Your task to perform on an android device: Clear the shopping cart on walmart. Search for razer naga on walmart, select the first entry, add it to the cart, then select checkout. Image 0: 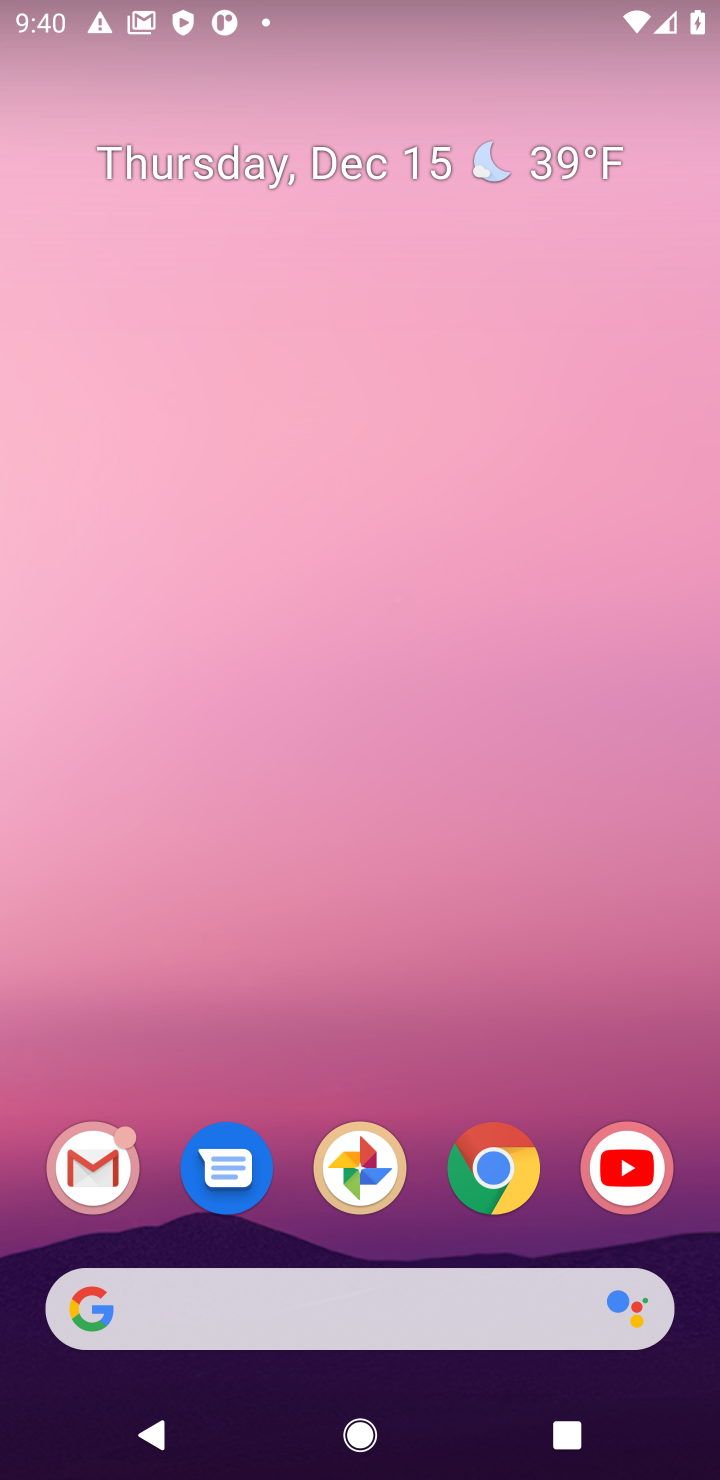
Step 0: click (481, 1165)
Your task to perform on an android device: Clear the shopping cart on walmart. Search for razer naga on walmart, select the first entry, add it to the cart, then select checkout. Image 1: 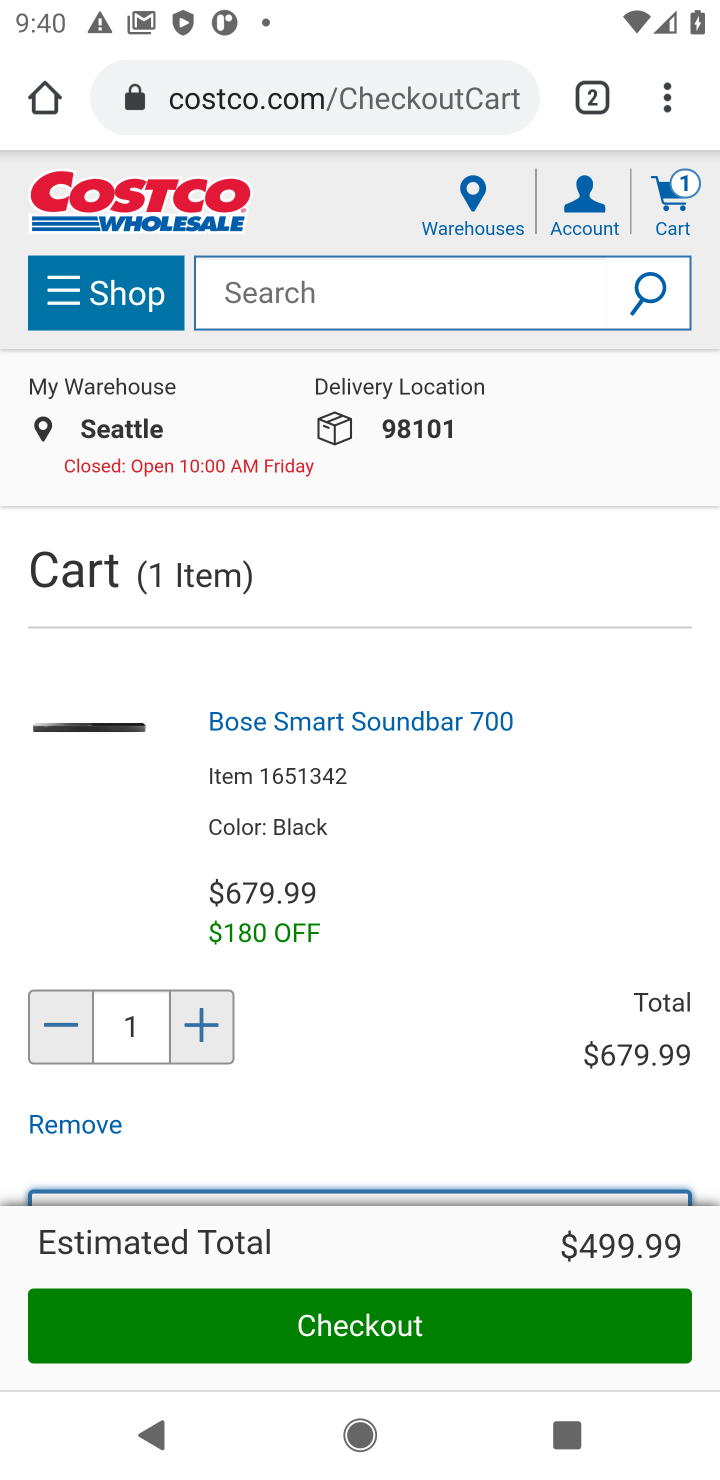
Step 1: click (320, 96)
Your task to perform on an android device: Clear the shopping cart on walmart. Search for razer naga on walmart, select the first entry, add it to the cart, then select checkout. Image 2: 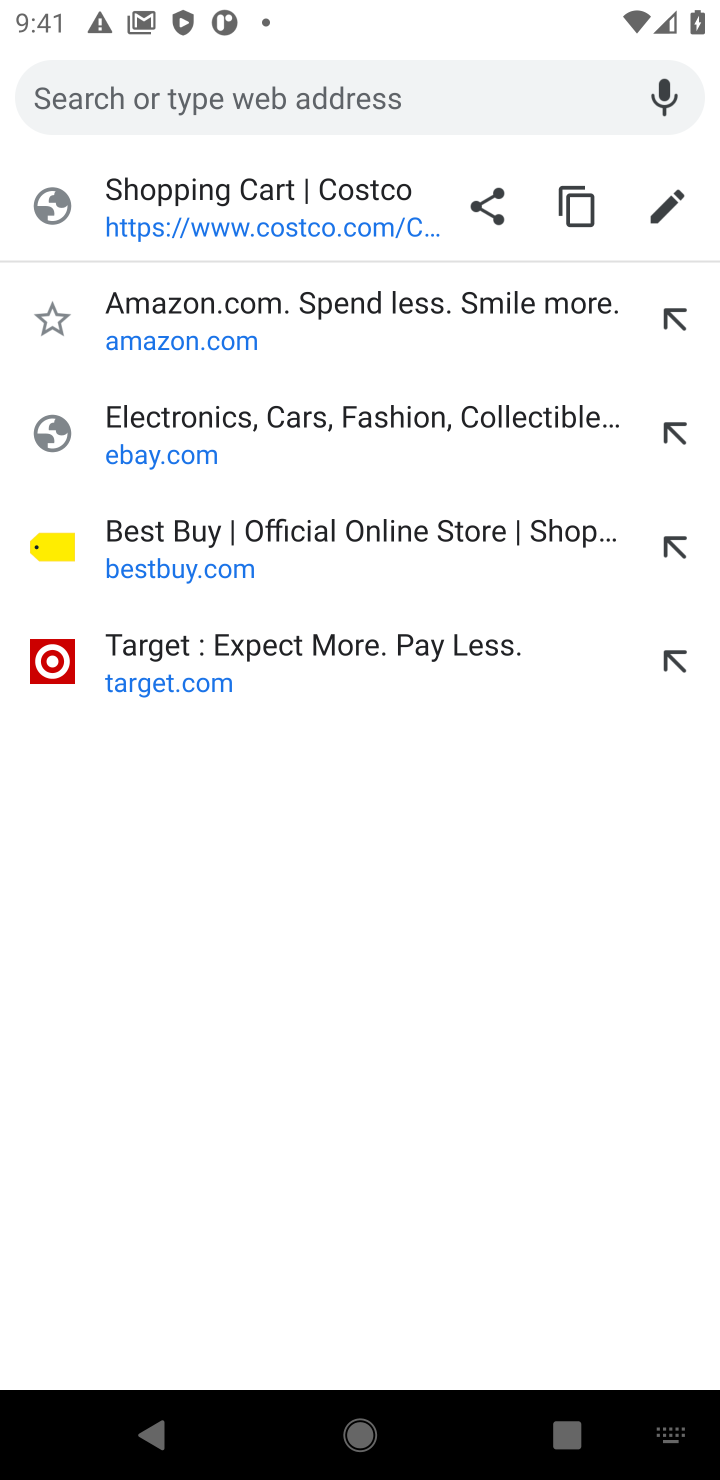
Step 2: type "WALMART"
Your task to perform on an android device: Clear the shopping cart on walmart. Search for razer naga on walmart, select the first entry, add it to the cart, then select checkout. Image 3: 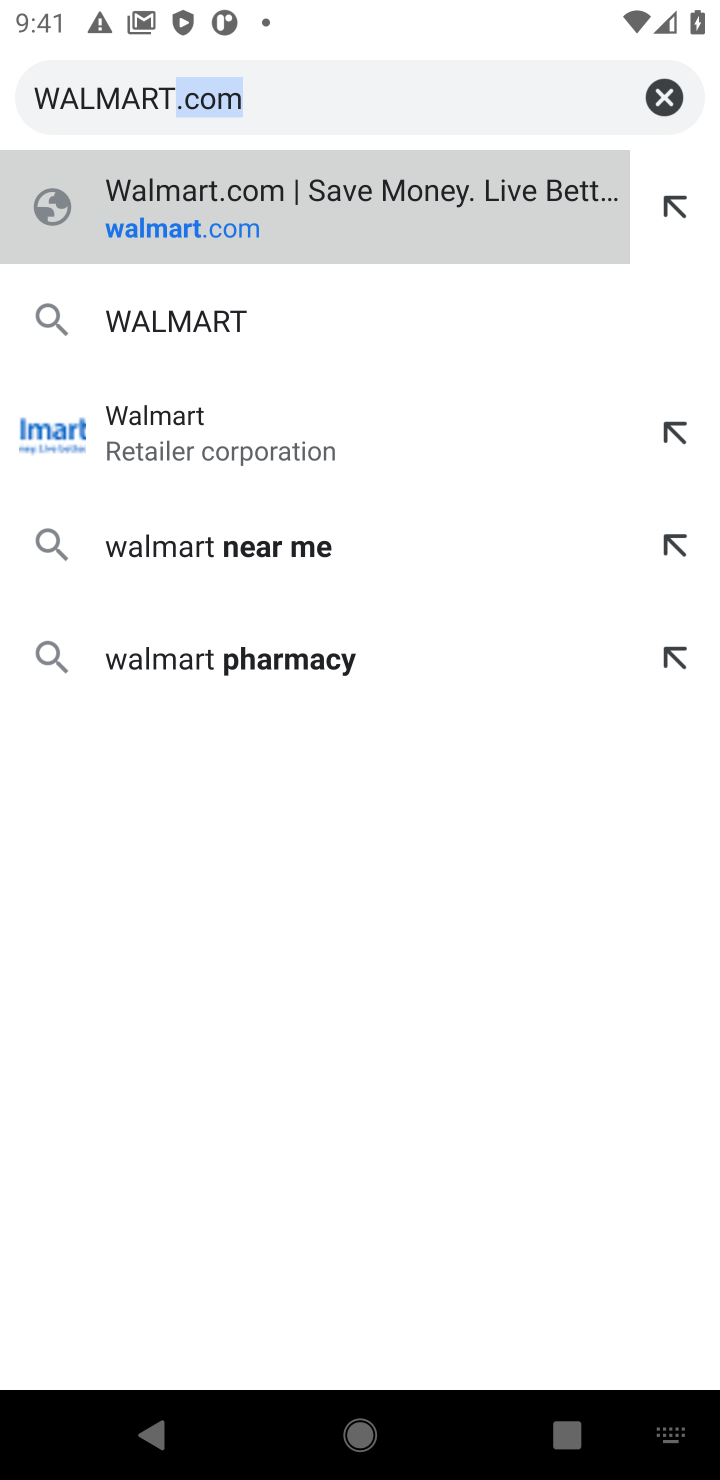
Step 3: click (321, 217)
Your task to perform on an android device: Clear the shopping cart on walmart. Search for razer naga on walmart, select the first entry, add it to the cart, then select checkout. Image 4: 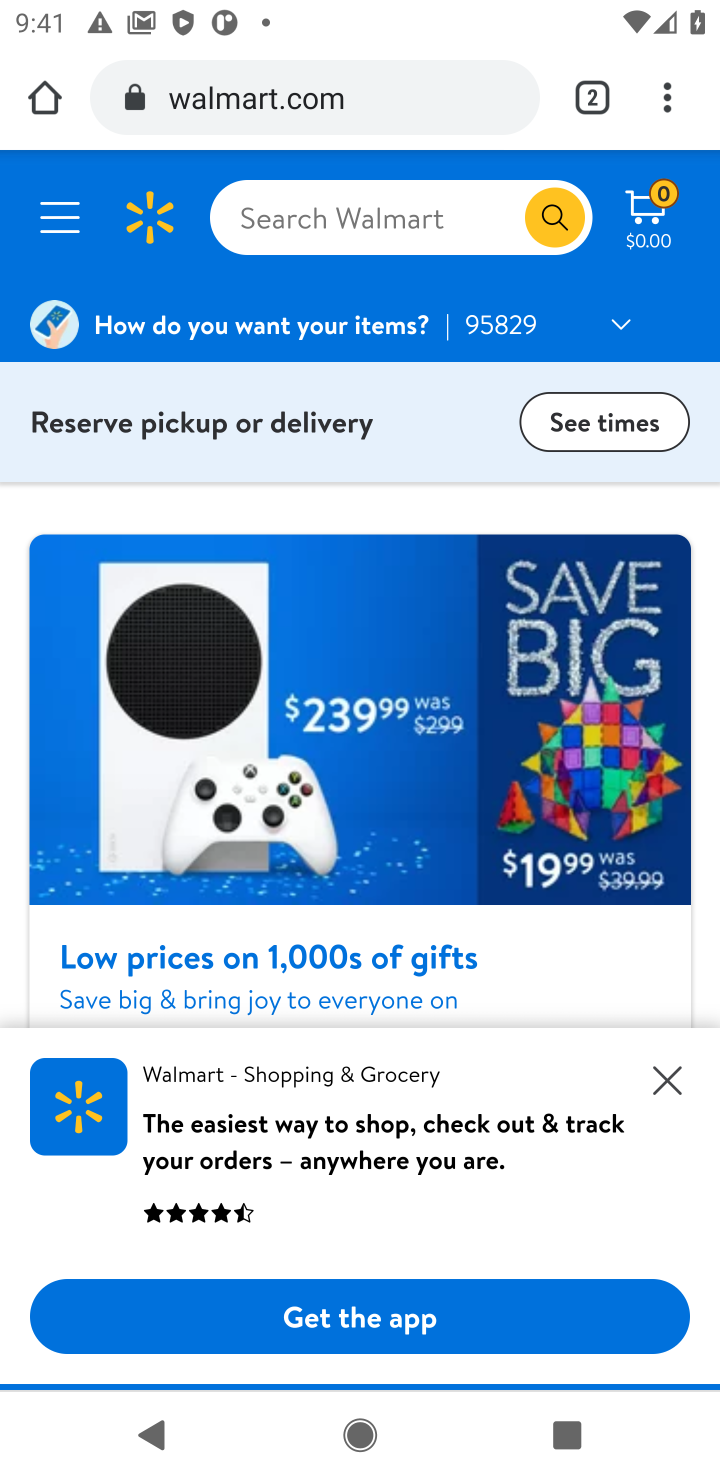
Step 4: click (393, 205)
Your task to perform on an android device: Clear the shopping cart on walmart. Search for razer naga on walmart, select the first entry, add it to the cart, then select checkout. Image 5: 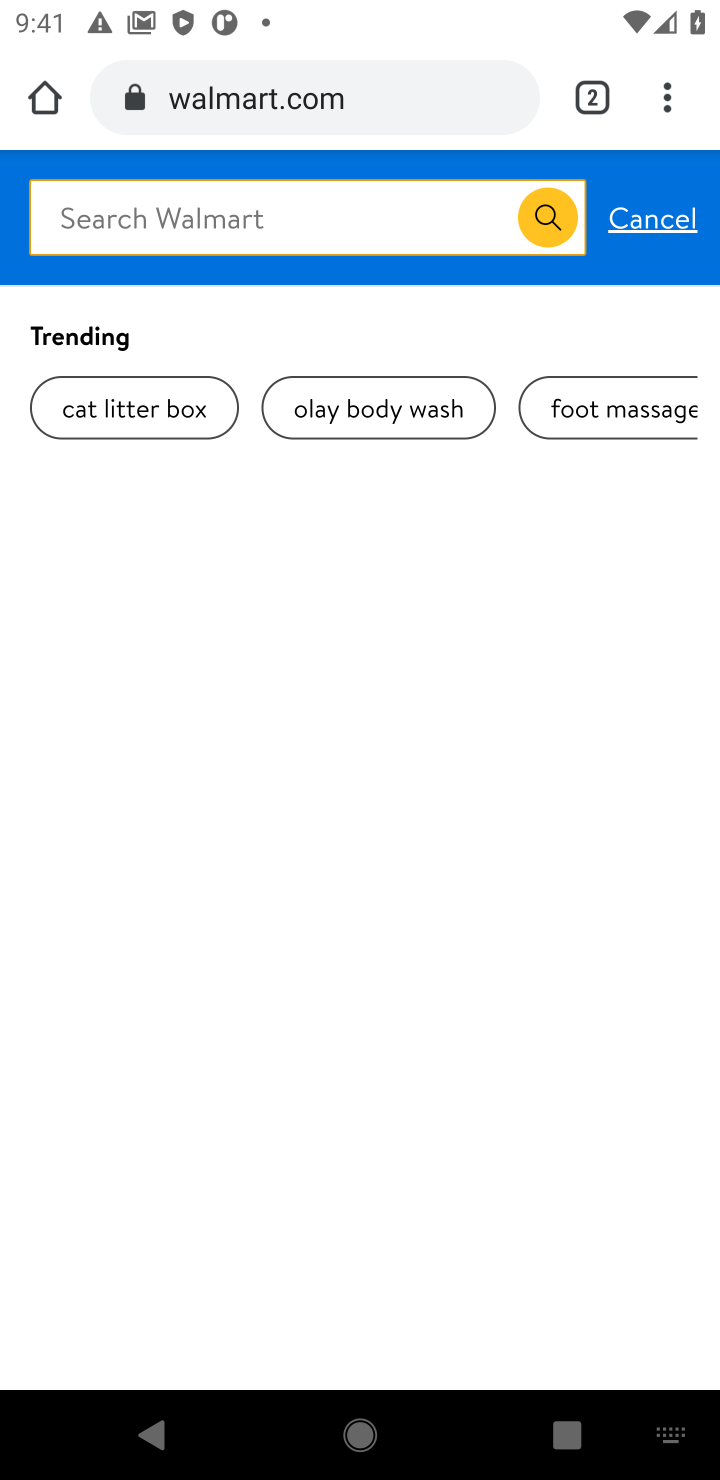
Step 5: type "razer naga"
Your task to perform on an android device: Clear the shopping cart on walmart. Search for razer naga on walmart, select the first entry, add it to the cart, then select checkout. Image 6: 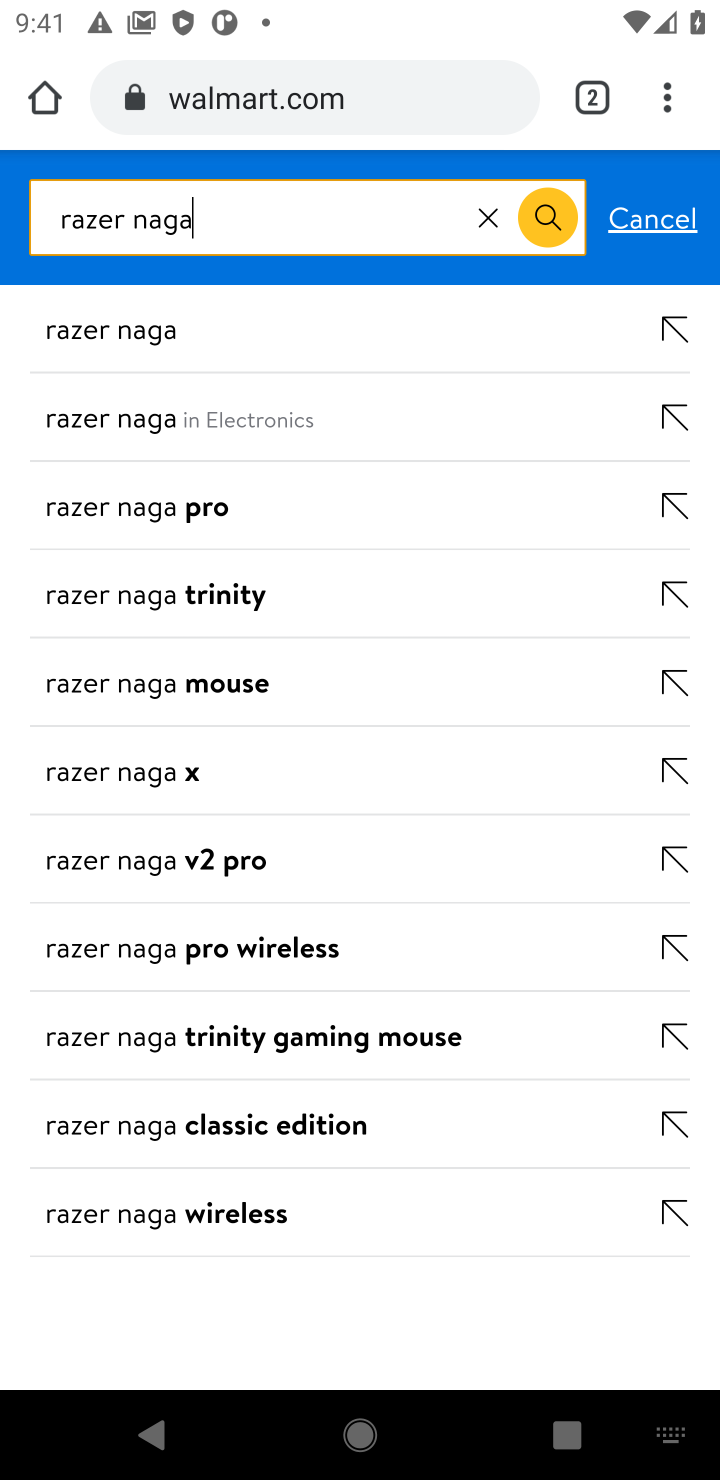
Step 6: click (109, 338)
Your task to perform on an android device: Clear the shopping cart on walmart. Search for razer naga on walmart, select the first entry, add it to the cart, then select checkout. Image 7: 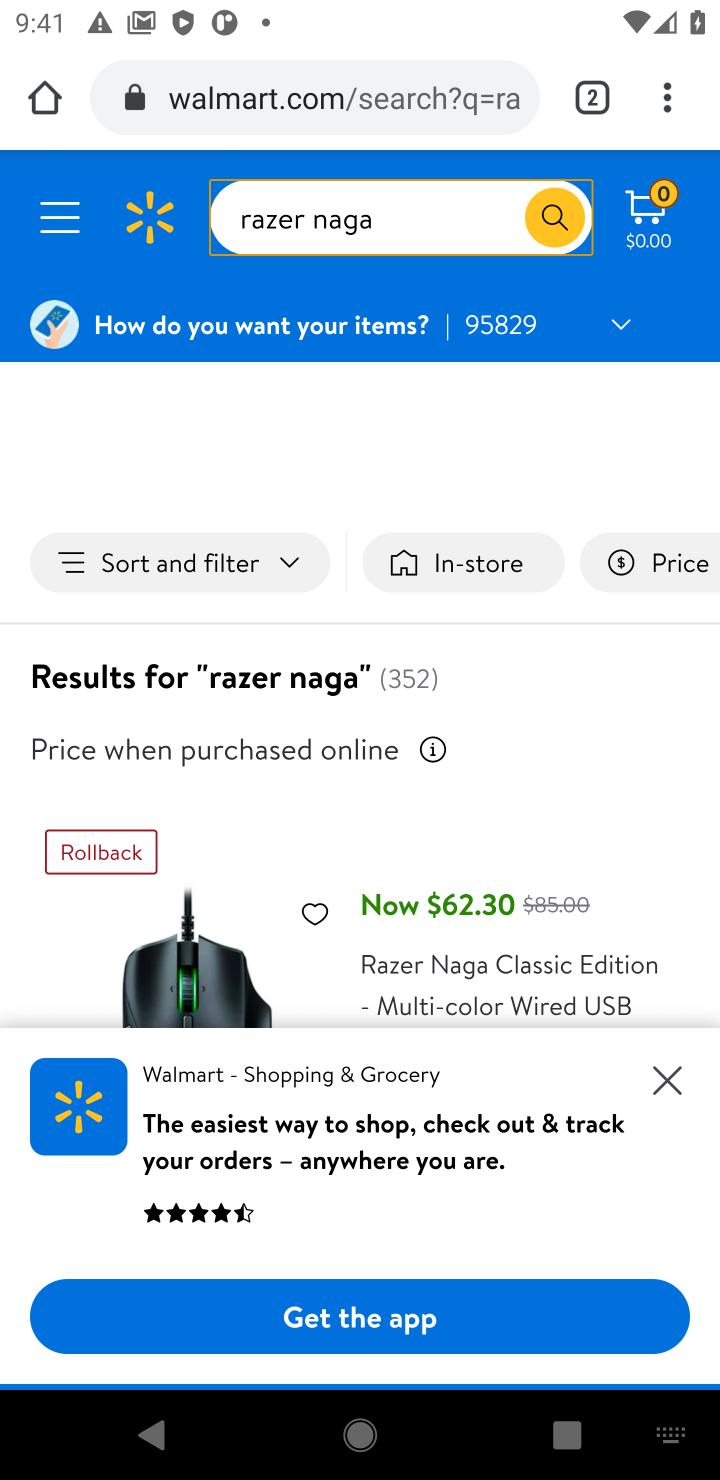
Step 7: click (661, 1081)
Your task to perform on an android device: Clear the shopping cart on walmart. Search for razer naga on walmart, select the first entry, add it to the cart, then select checkout. Image 8: 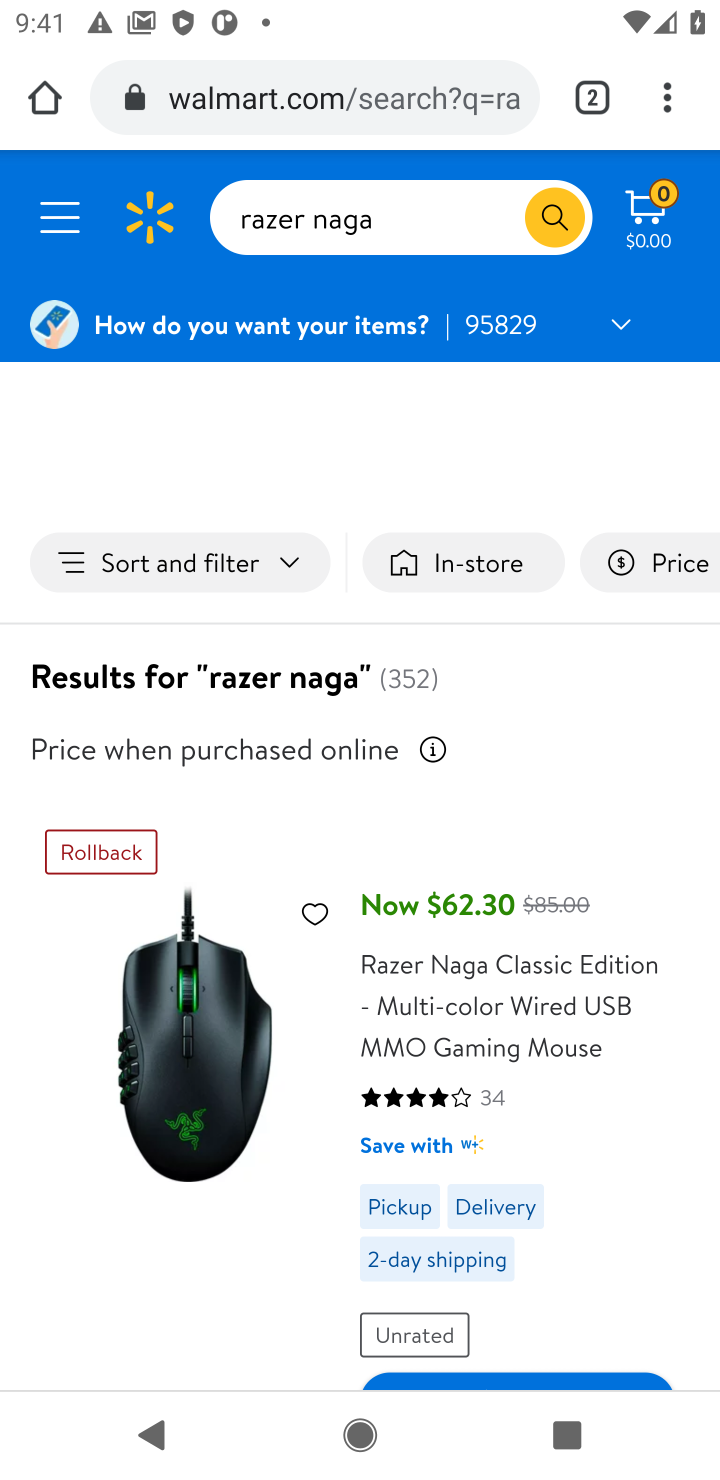
Step 8: click (666, 1014)
Your task to perform on an android device: Clear the shopping cart on walmart. Search for razer naga on walmart, select the first entry, add it to the cart, then select checkout. Image 9: 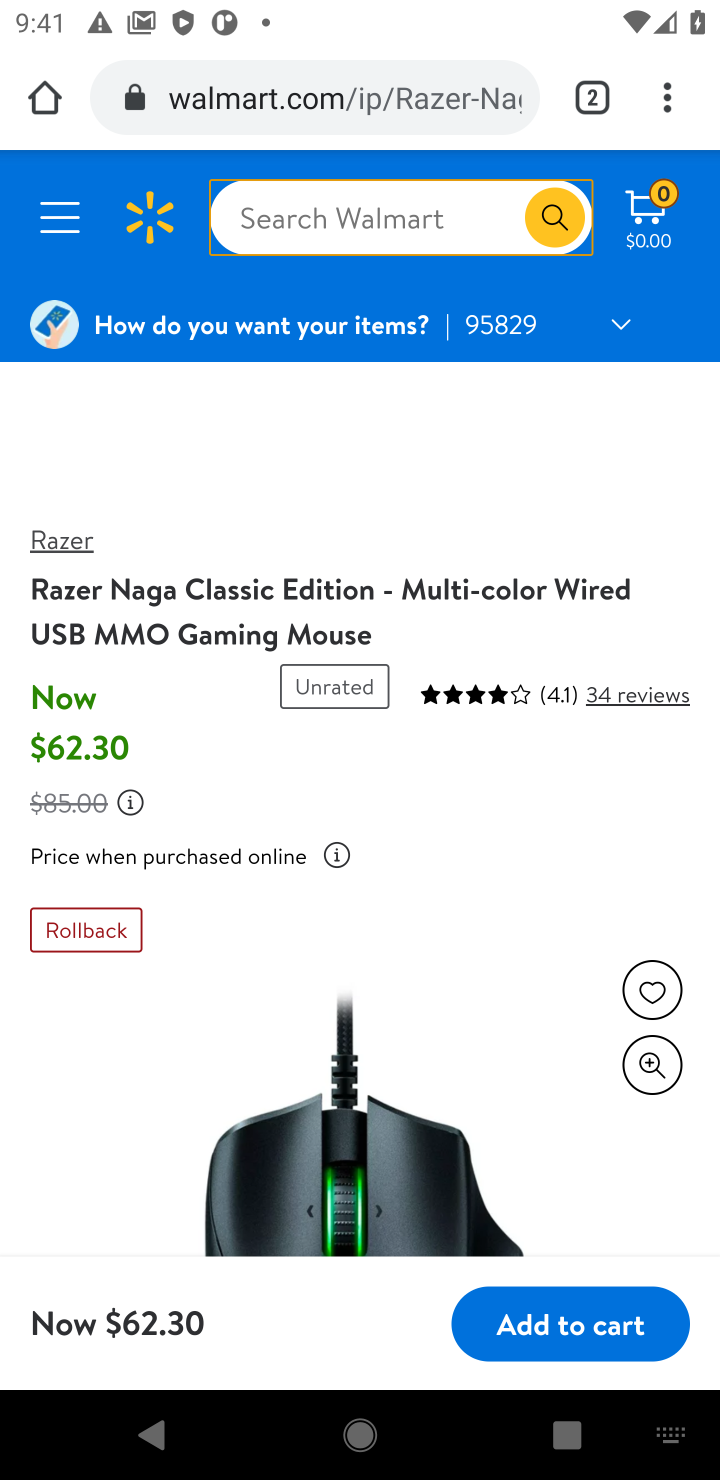
Step 9: click (554, 1304)
Your task to perform on an android device: Clear the shopping cart on walmart. Search for razer naga on walmart, select the first entry, add it to the cart, then select checkout. Image 10: 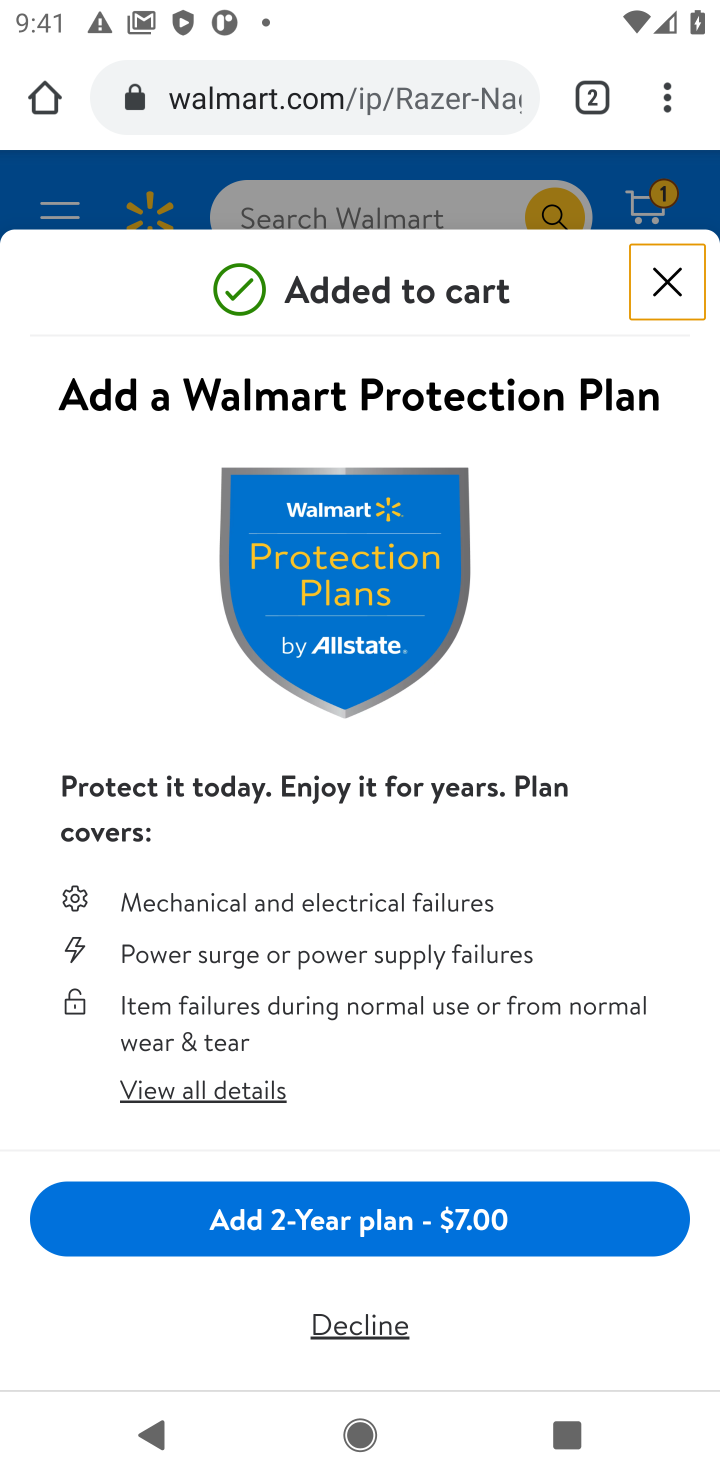
Step 10: click (670, 273)
Your task to perform on an android device: Clear the shopping cart on walmart. Search for razer naga on walmart, select the first entry, add it to the cart, then select checkout. Image 11: 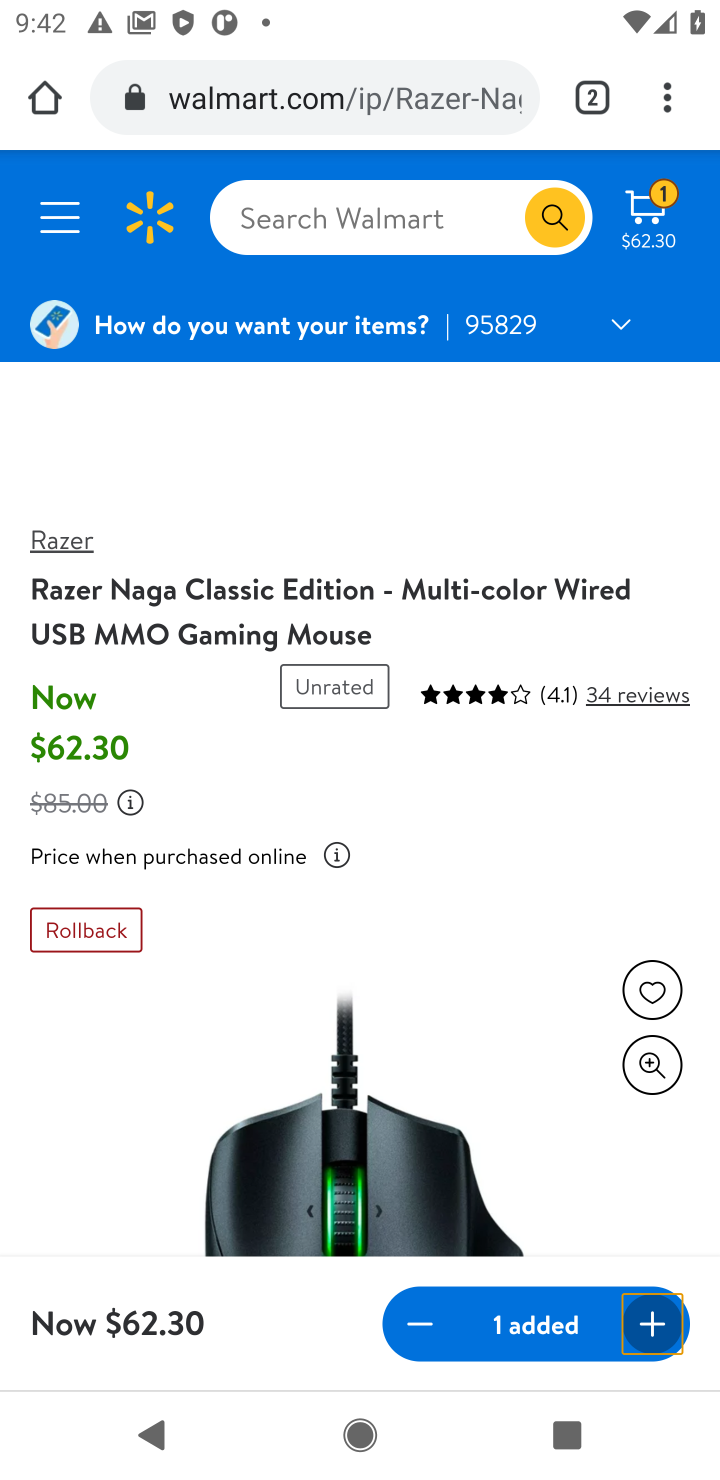
Step 11: click (654, 219)
Your task to perform on an android device: Clear the shopping cart on walmart. Search for razer naga on walmart, select the first entry, add it to the cart, then select checkout. Image 12: 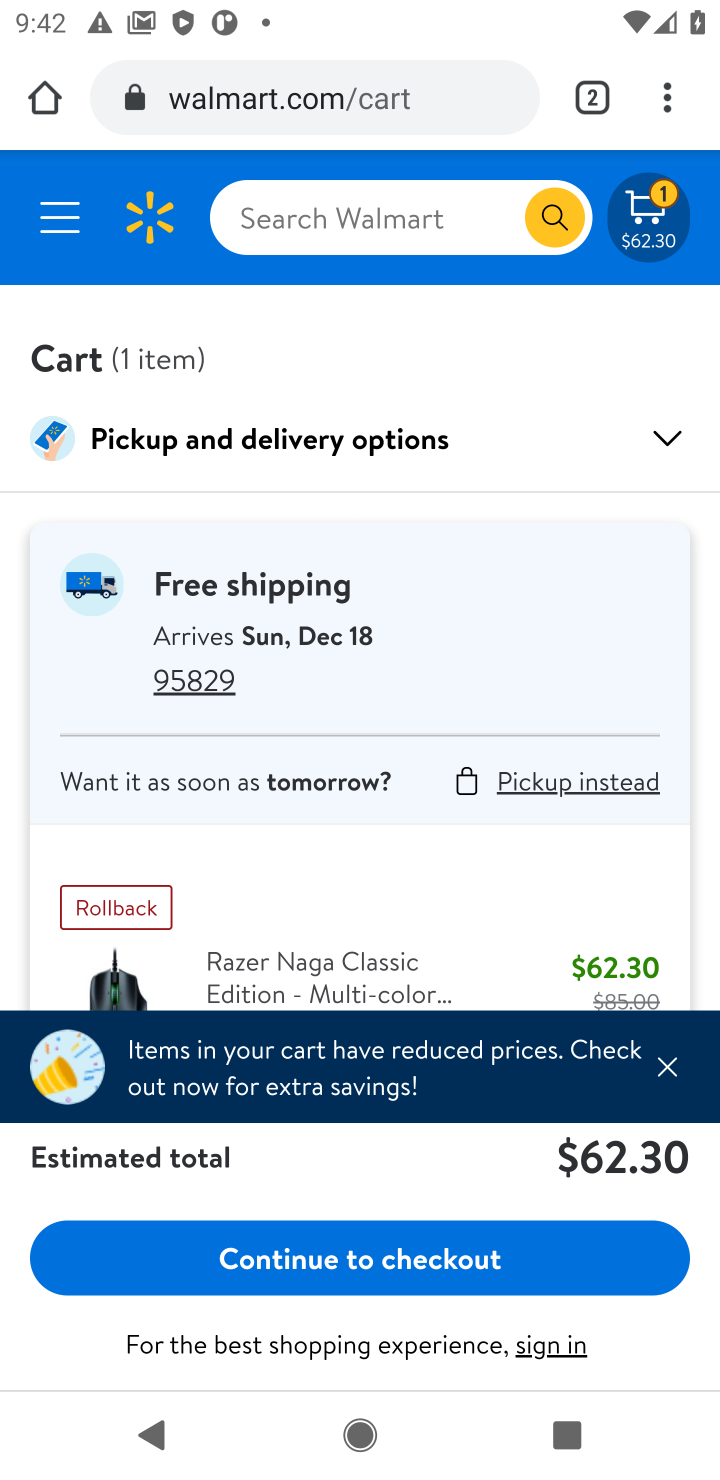
Step 12: click (333, 1264)
Your task to perform on an android device: Clear the shopping cart on walmart. Search for razer naga on walmart, select the first entry, add it to the cart, then select checkout. Image 13: 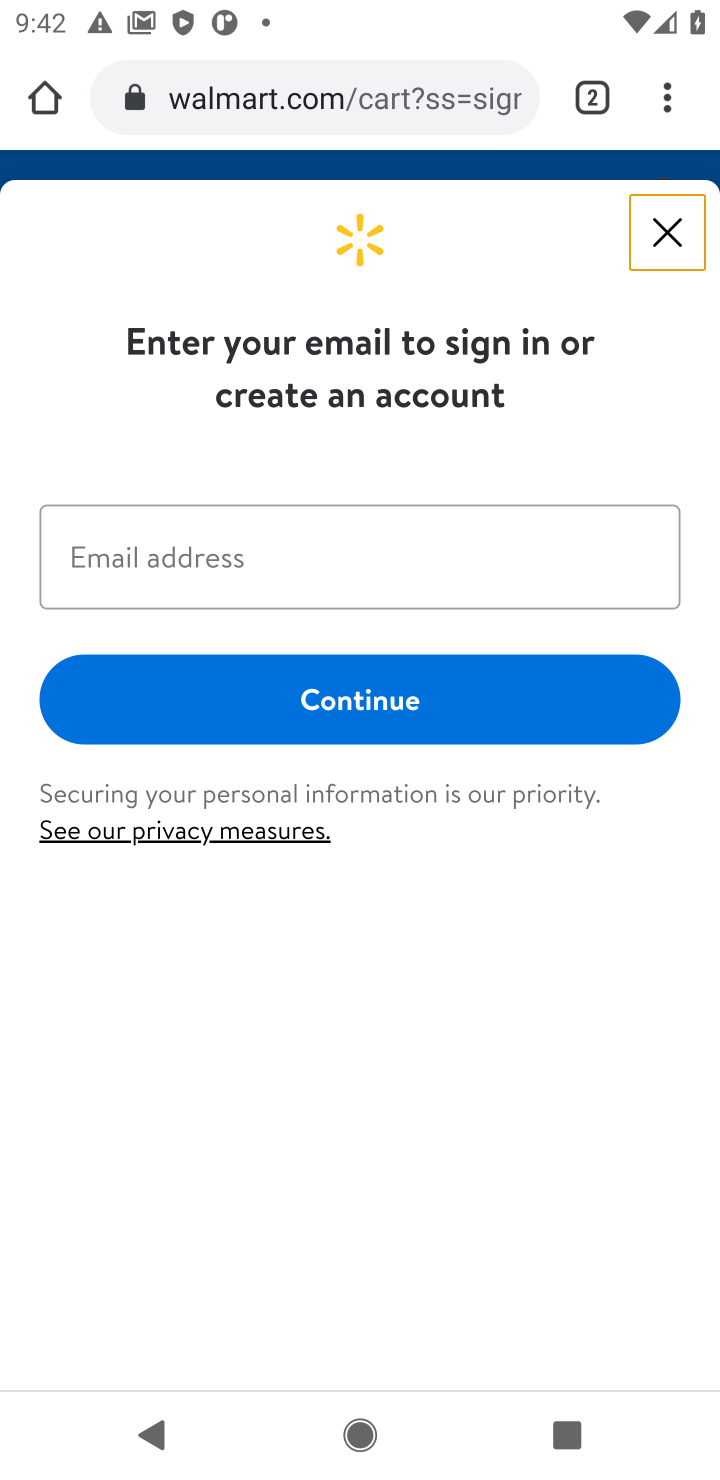
Step 13: task complete